Your task to perform on an android device: What is the recent news? Image 0: 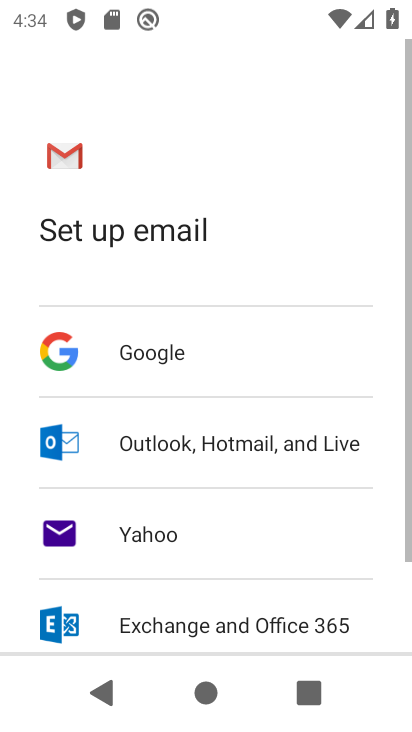
Step 0: press back button
Your task to perform on an android device: What is the recent news? Image 1: 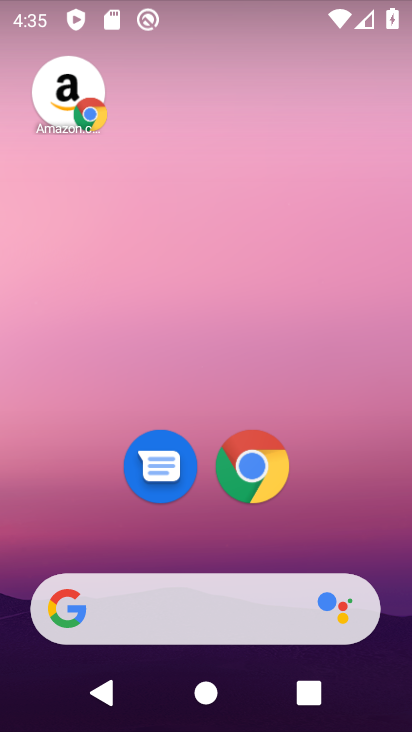
Step 1: drag from (361, 540) to (207, 9)
Your task to perform on an android device: What is the recent news? Image 2: 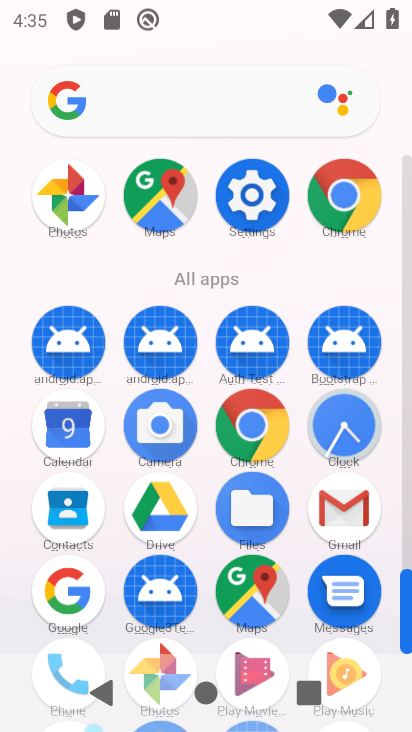
Step 2: drag from (16, 538) to (11, 161)
Your task to perform on an android device: What is the recent news? Image 3: 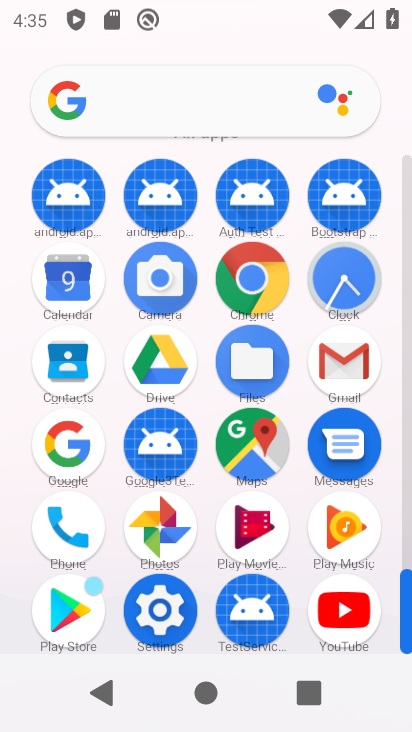
Step 3: click (255, 275)
Your task to perform on an android device: What is the recent news? Image 4: 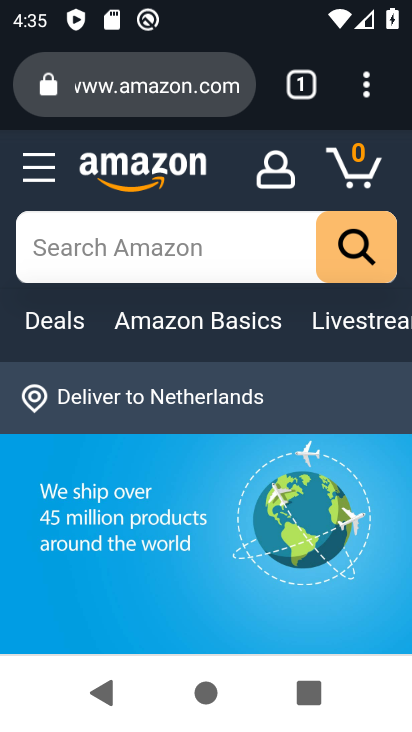
Step 4: click (159, 83)
Your task to perform on an android device: What is the recent news? Image 5: 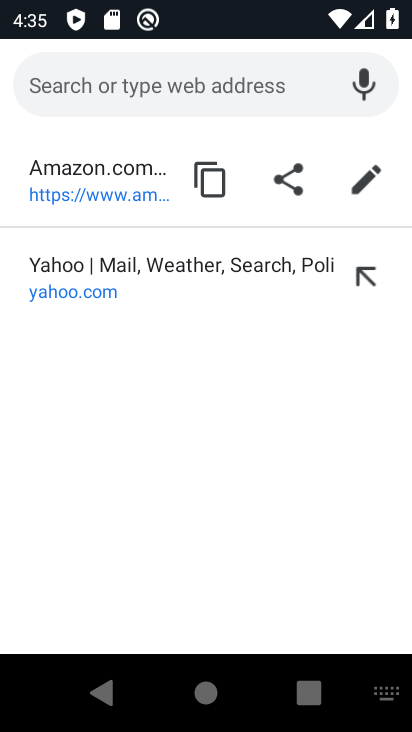
Step 5: type "What is the recent news?"
Your task to perform on an android device: What is the recent news? Image 6: 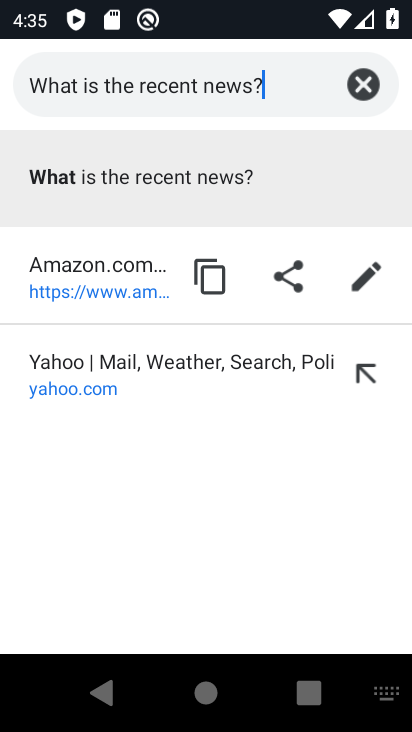
Step 6: type ""
Your task to perform on an android device: What is the recent news? Image 7: 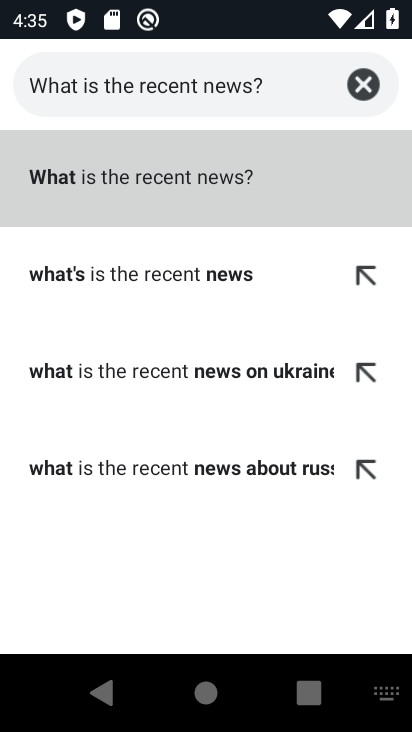
Step 7: click (146, 194)
Your task to perform on an android device: What is the recent news? Image 8: 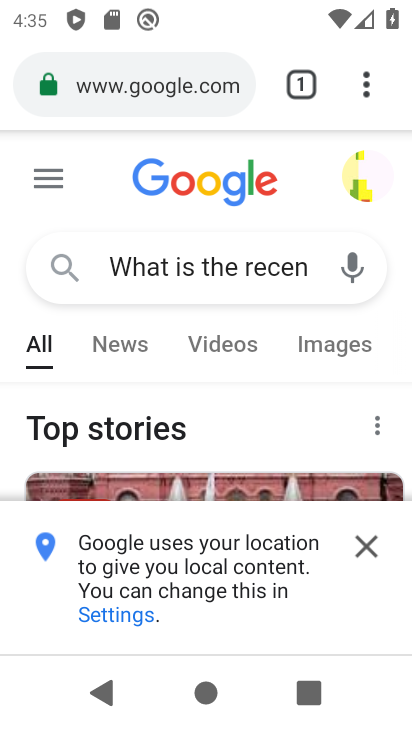
Step 8: click (369, 549)
Your task to perform on an android device: What is the recent news? Image 9: 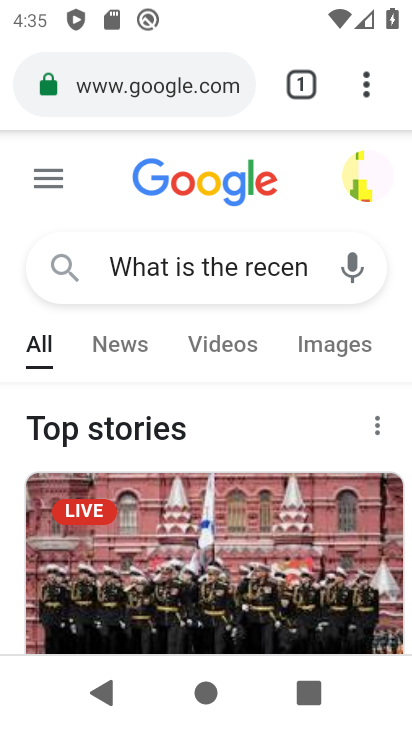
Step 9: task complete